Your task to perform on an android device: delete the emails in spam in the gmail app Image 0: 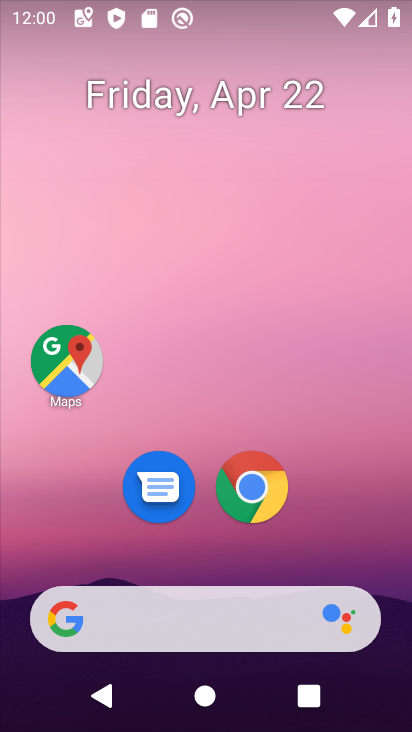
Step 0: drag from (204, 535) to (208, 67)
Your task to perform on an android device: delete the emails in spam in the gmail app Image 1: 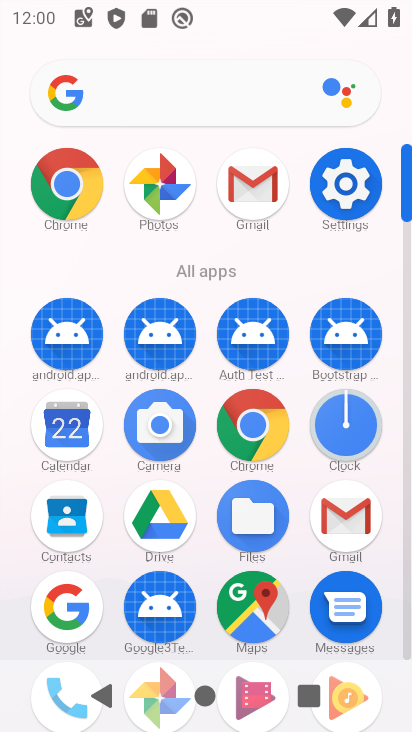
Step 1: click (261, 202)
Your task to perform on an android device: delete the emails in spam in the gmail app Image 2: 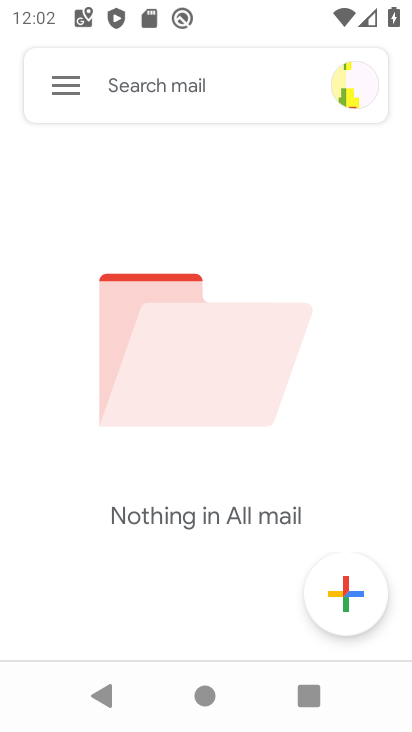
Step 2: task complete